Your task to perform on an android device: Open Google Chrome Image 0: 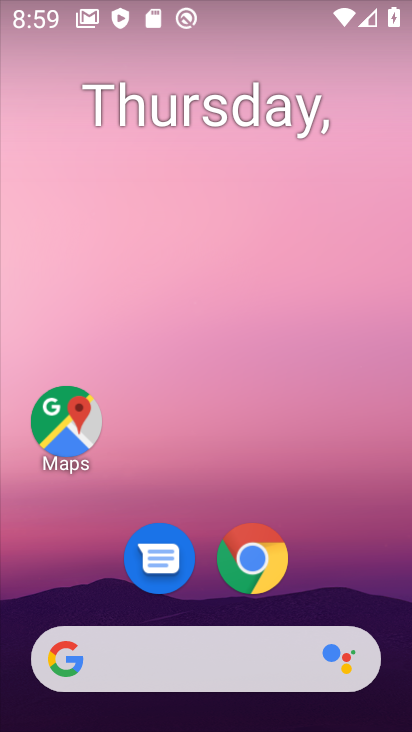
Step 0: click (249, 555)
Your task to perform on an android device: Open Google Chrome Image 1: 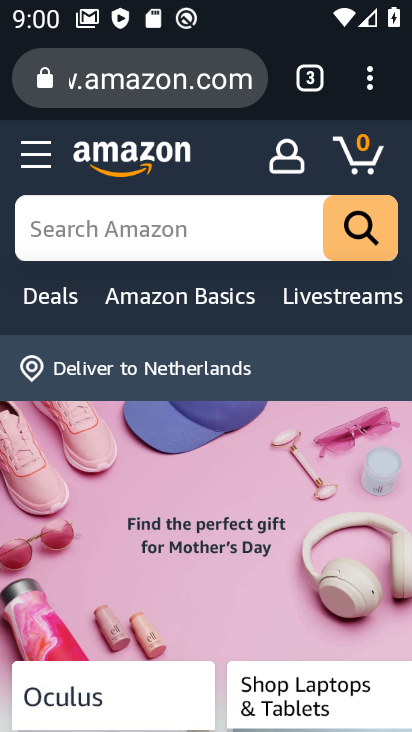
Step 1: task complete